Your task to perform on an android device: empty trash in the gmail app Image 0: 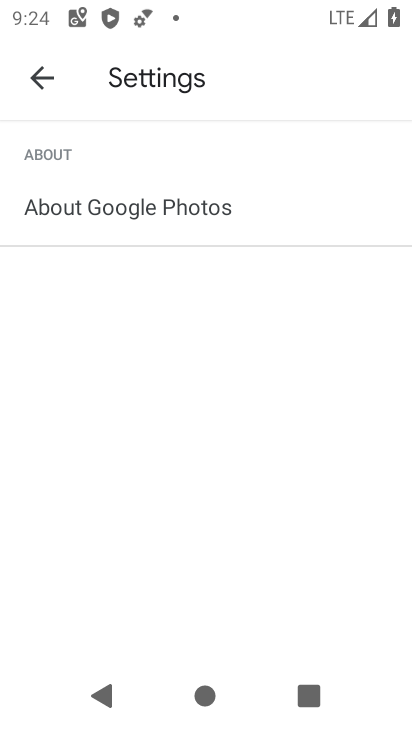
Step 0: press home button
Your task to perform on an android device: empty trash in the gmail app Image 1: 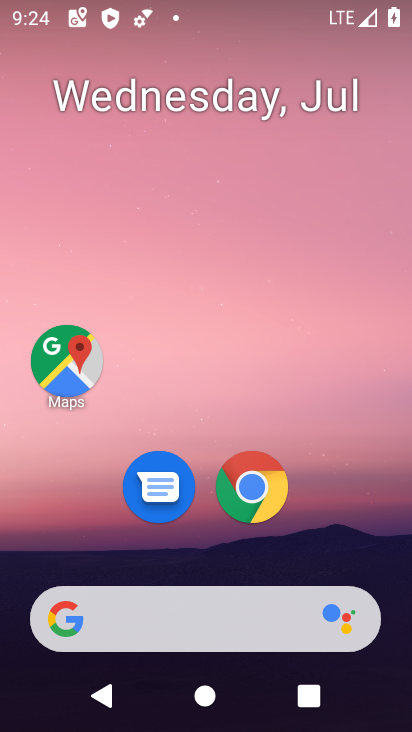
Step 1: drag from (219, 559) to (228, 112)
Your task to perform on an android device: empty trash in the gmail app Image 2: 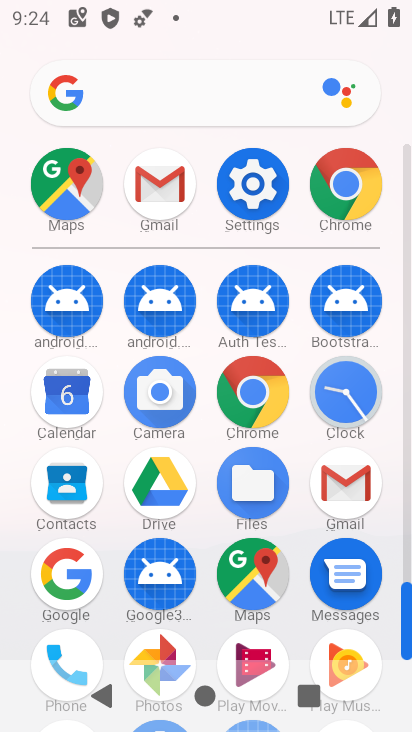
Step 2: click (335, 492)
Your task to perform on an android device: empty trash in the gmail app Image 3: 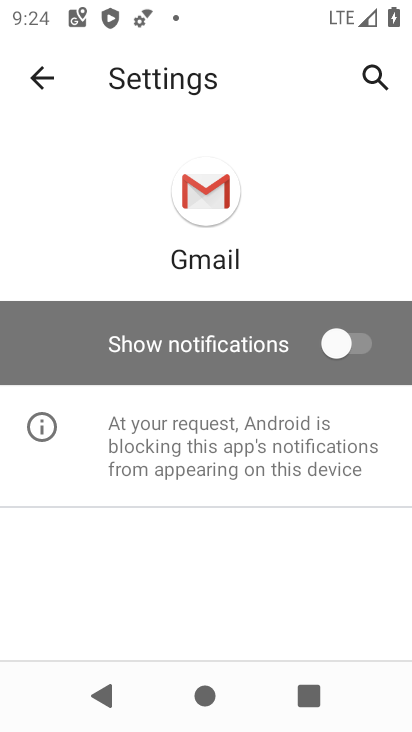
Step 3: click (40, 76)
Your task to perform on an android device: empty trash in the gmail app Image 4: 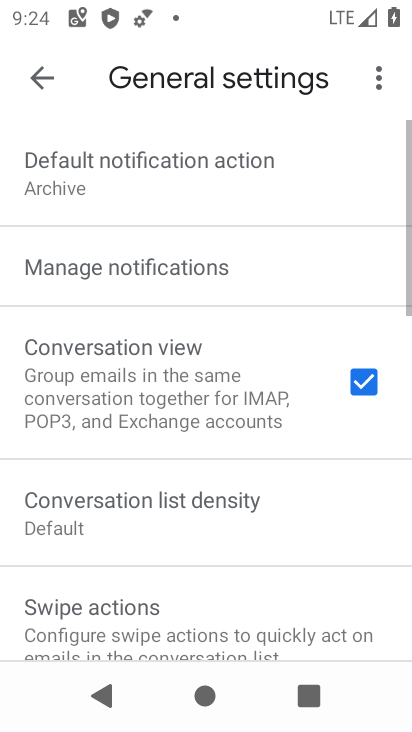
Step 4: click (40, 76)
Your task to perform on an android device: empty trash in the gmail app Image 5: 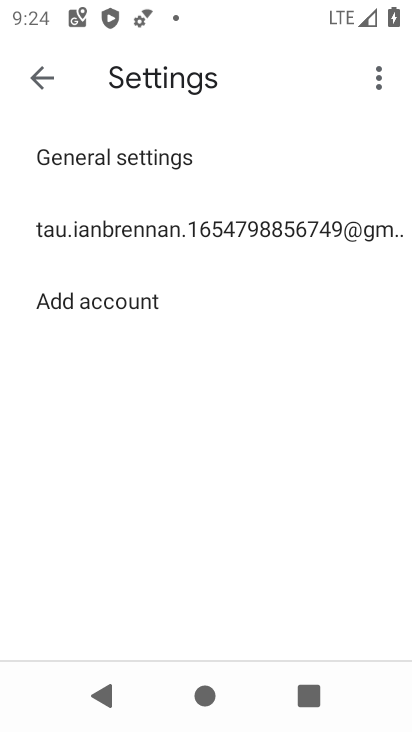
Step 5: click (40, 76)
Your task to perform on an android device: empty trash in the gmail app Image 6: 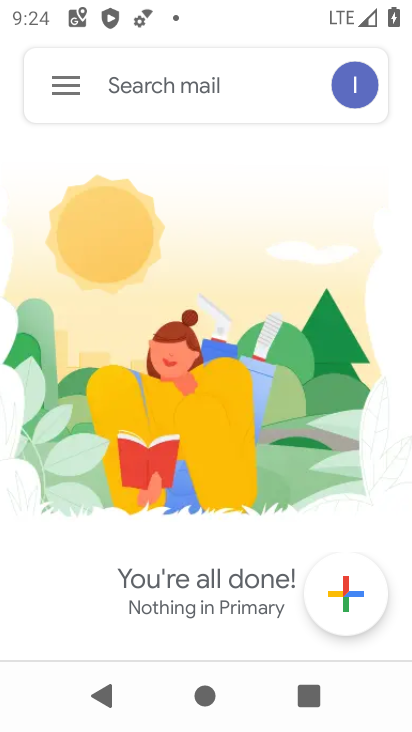
Step 6: click (67, 82)
Your task to perform on an android device: empty trash in the gmail app Image 7: 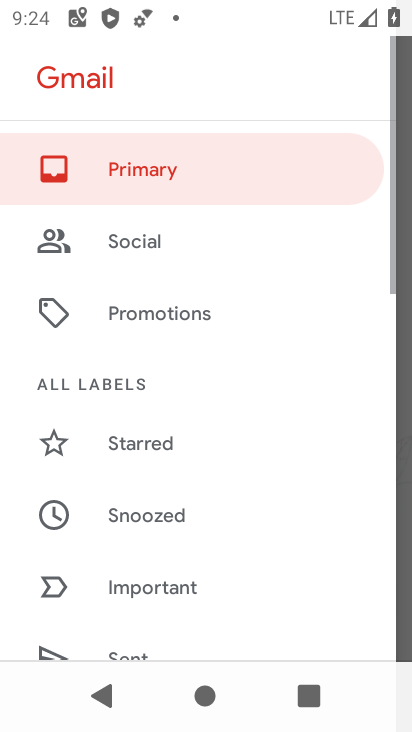
Step 7: drag from (199, 575) to (239, 84)
Your task to perform on an android device: empty trash in the gmail app Image 8: 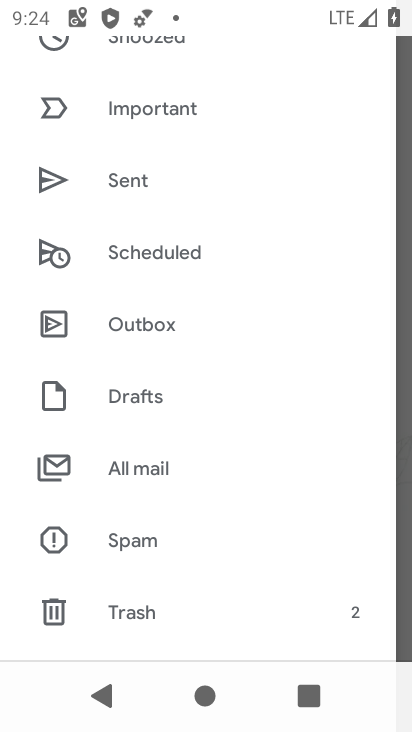
Step 8: click (94, 587)
Your task to perform on an android device: empty trash in the gmail app Image 9: 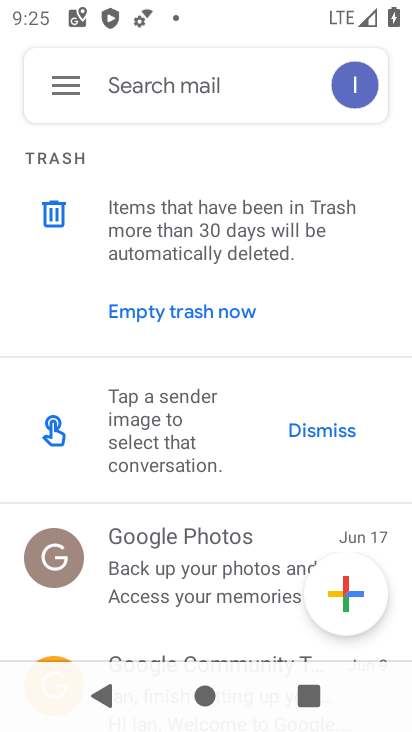
Step 9: click (208, 308)
Your task to perform on an android device: empty trash in the gmail app Image 10: 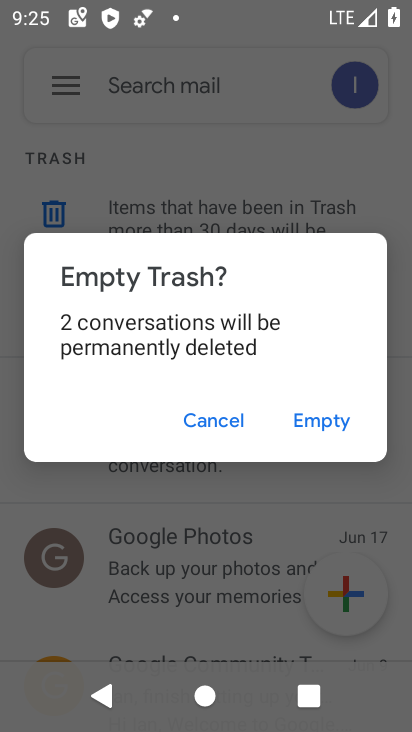
Step 10: click (334, 425)
Your task to perform on an android device: empty trash in the gmail app Image 11: 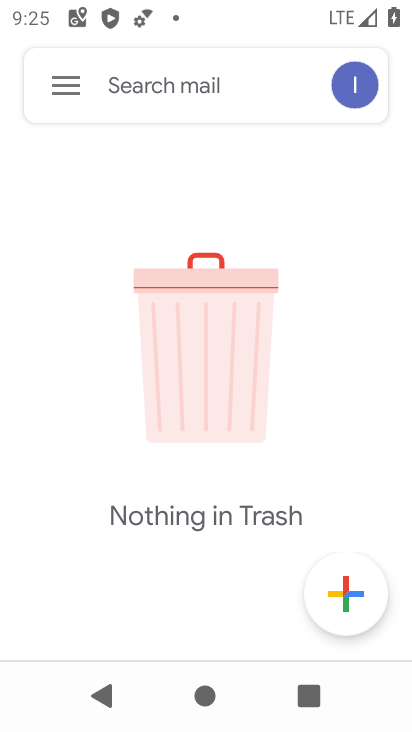
Step 11: task complete